Your task to perform on an android device: Go to Wikipedia Image 0: 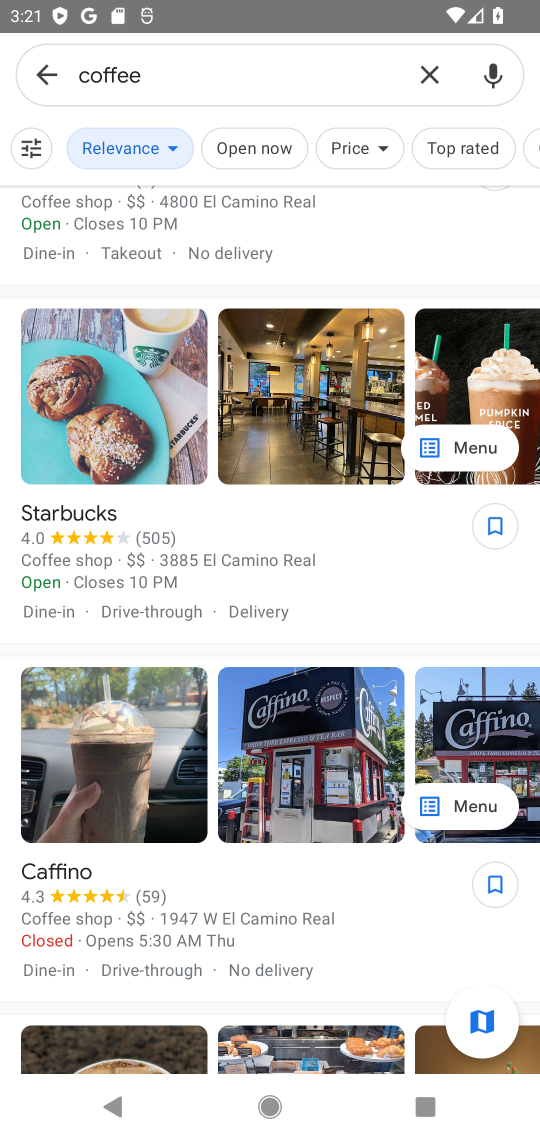
Step 0: drag from (258, 685) to (428, 1091)
Your task to perform on an android device: Go to Wikipedia Image 1: 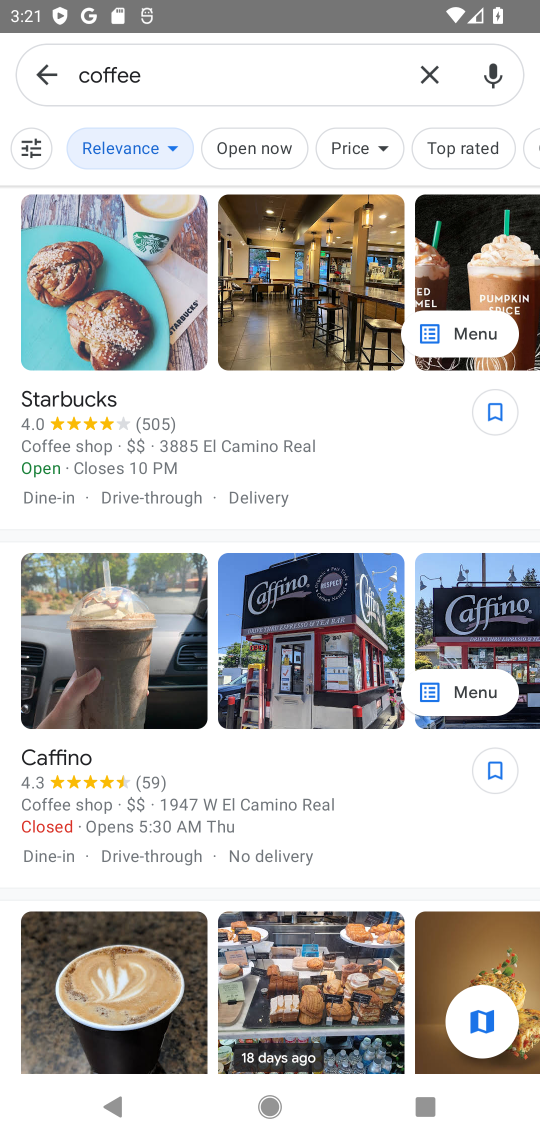
Step 1: click (421, 71)
Your task to perform on an android device: Go to Wikipedia Image 2: 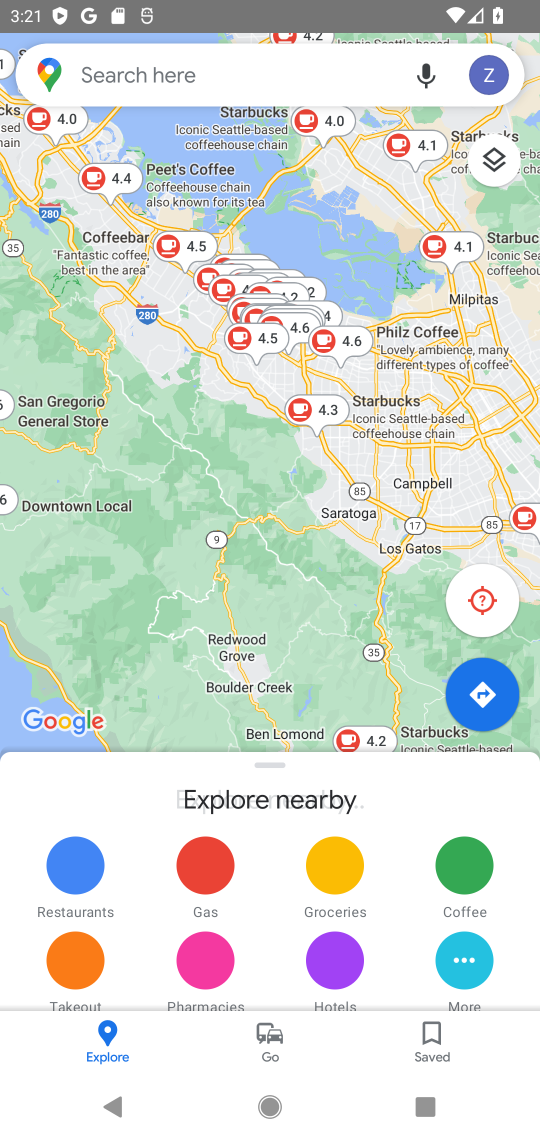
Step 2: press home button
Your task to perform on an android device: Go to Wikipedia Image 3: 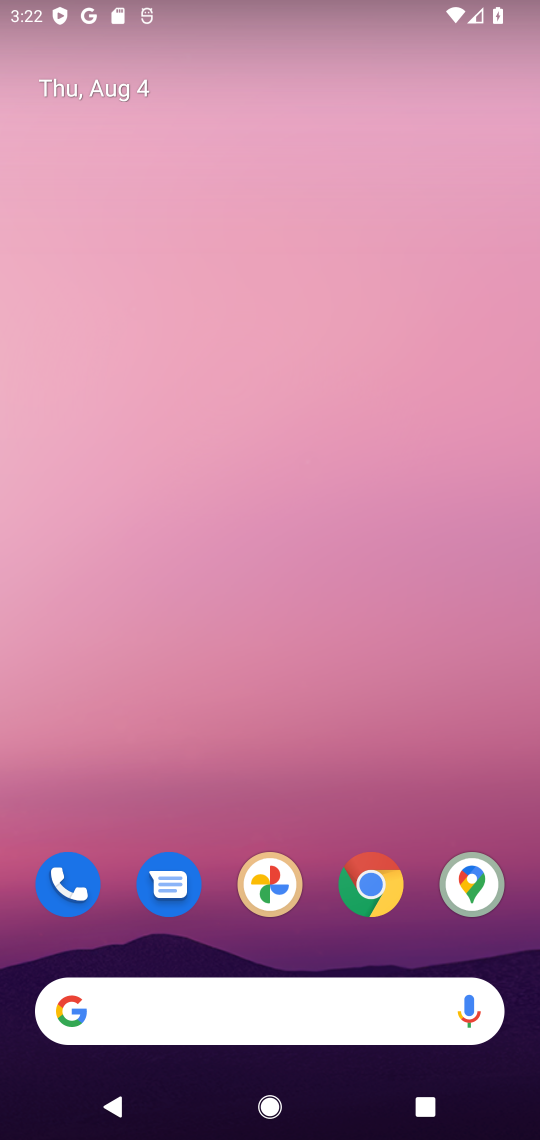
Step 3: click (190, 1018)
Your task to perform on an android device: Go to Wikipedia Image 4: 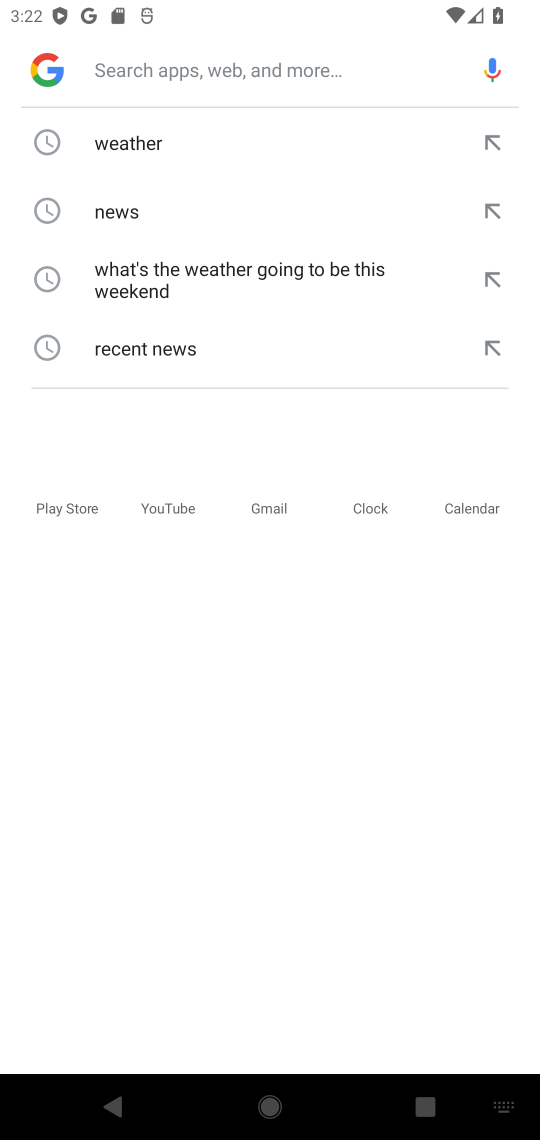
Step 4: type "Wikipedia"
Your task to perform on an android device: Go to Wikipedia Image 5: 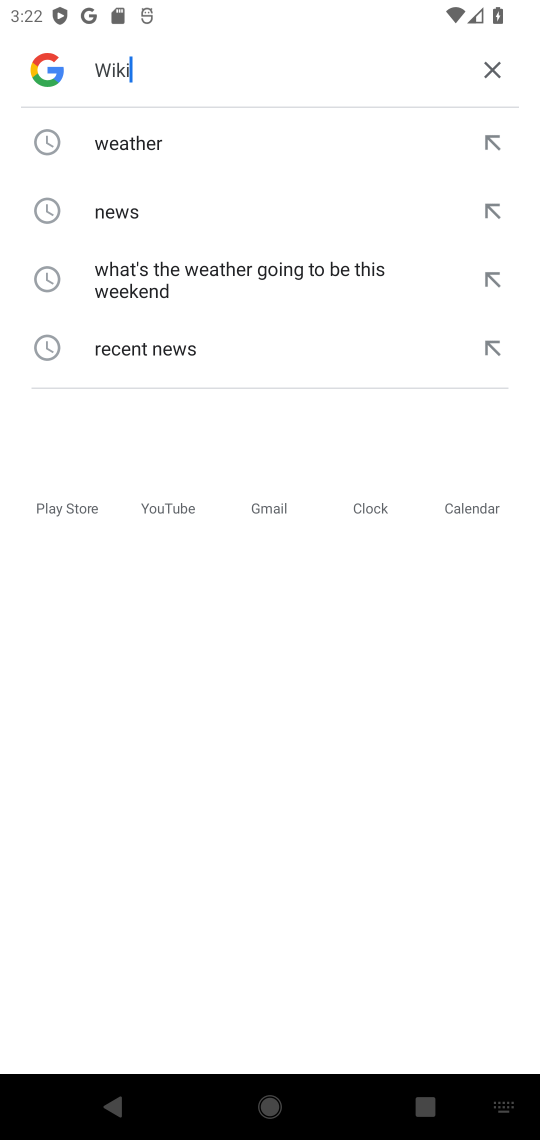
Step 5: type ""
Your task to perform on an android device: Go to Wikipedia Image 6: 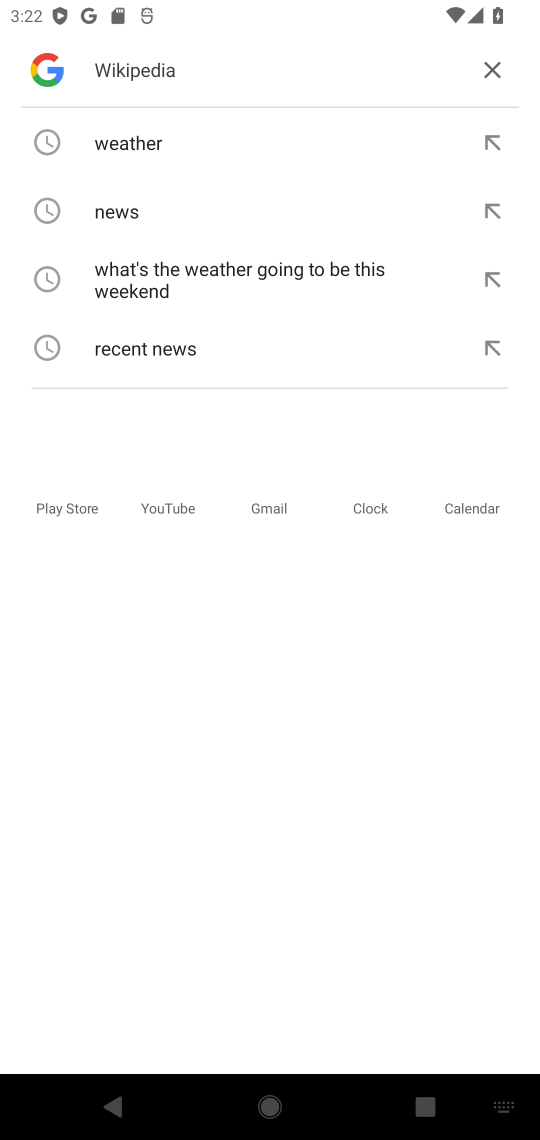
Step 6: drag from (163, 487) to (391, 1123)
Your task to perform on an android device: Go to Wikipedia Image 7: 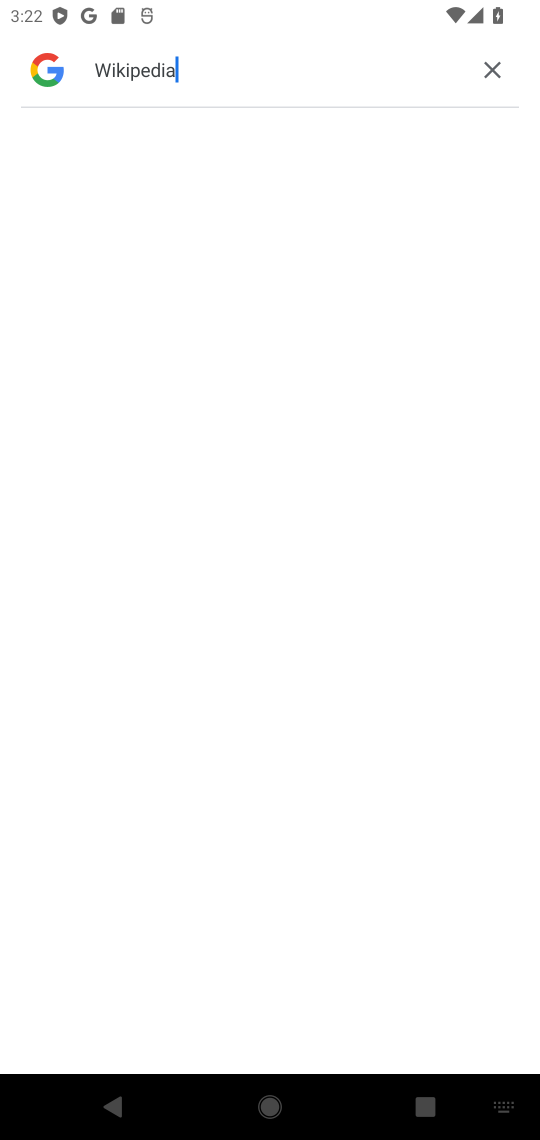
Step 7: click (144, 183)
Your task to perform on an android device: Go to Wikipedia Image 8: 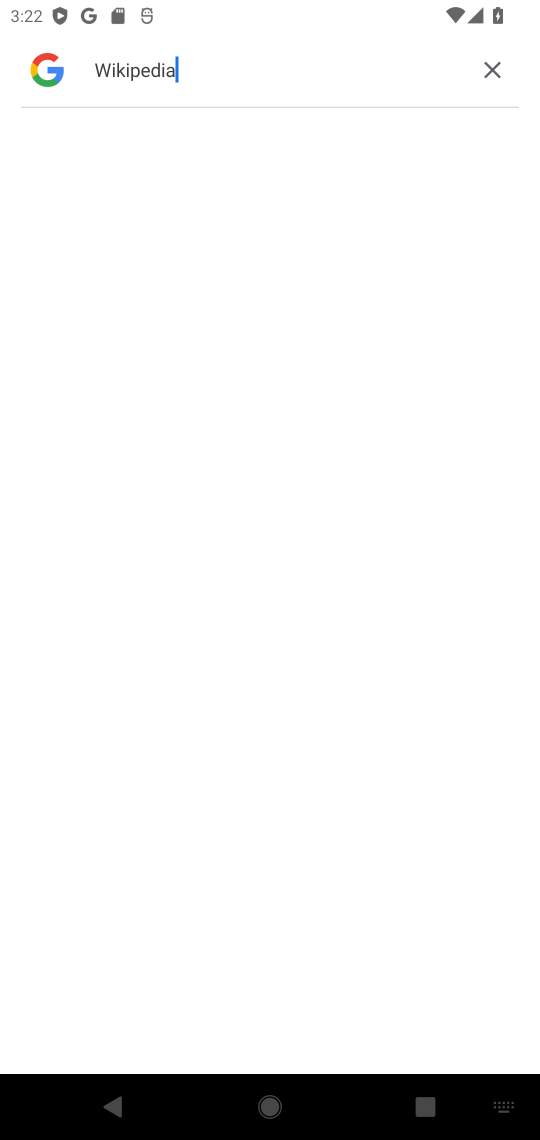
Step 8: drag from (264, 249) to (278, 735)
Your task to perform on an android device: Go to Wikipedia Image 9: 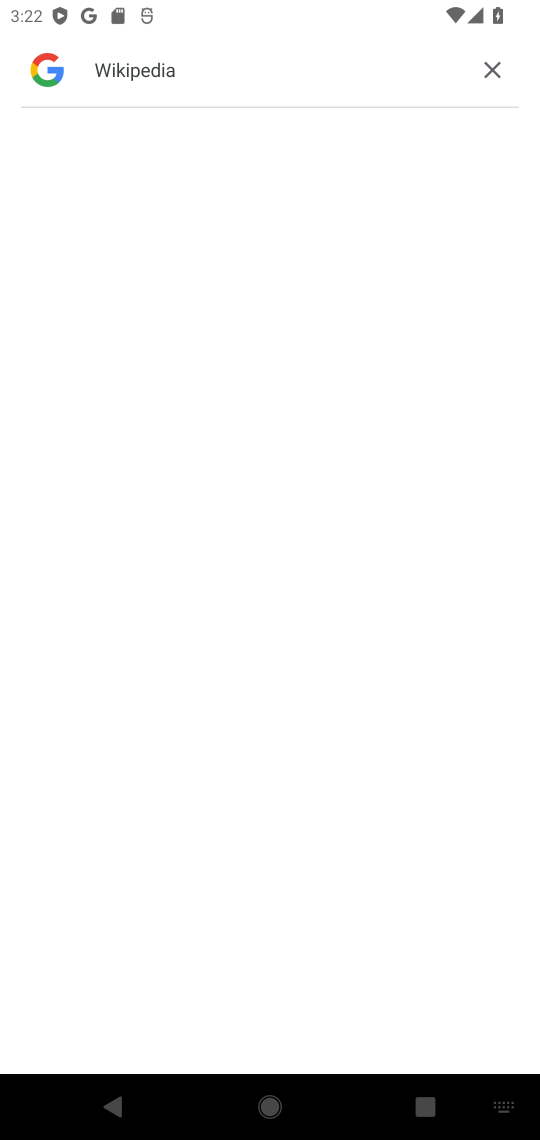
Step 9: click (244, 151)
Your task to perform on an android device: Go to Wikipedia Image 10: 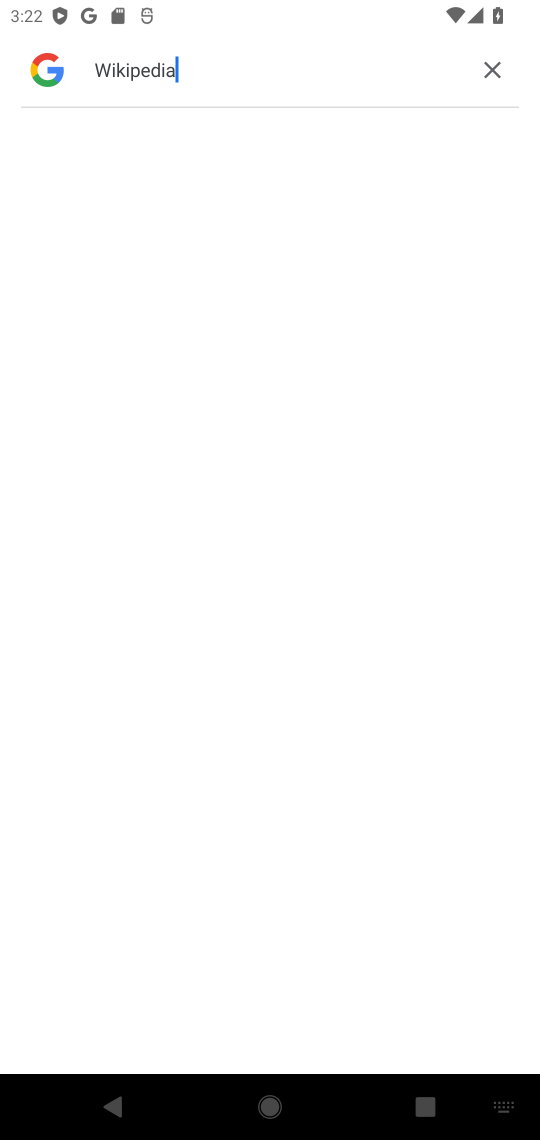
Step 10: click (244, 154)
Your task to perform on an android device: Go to Wikipedia Image 11: 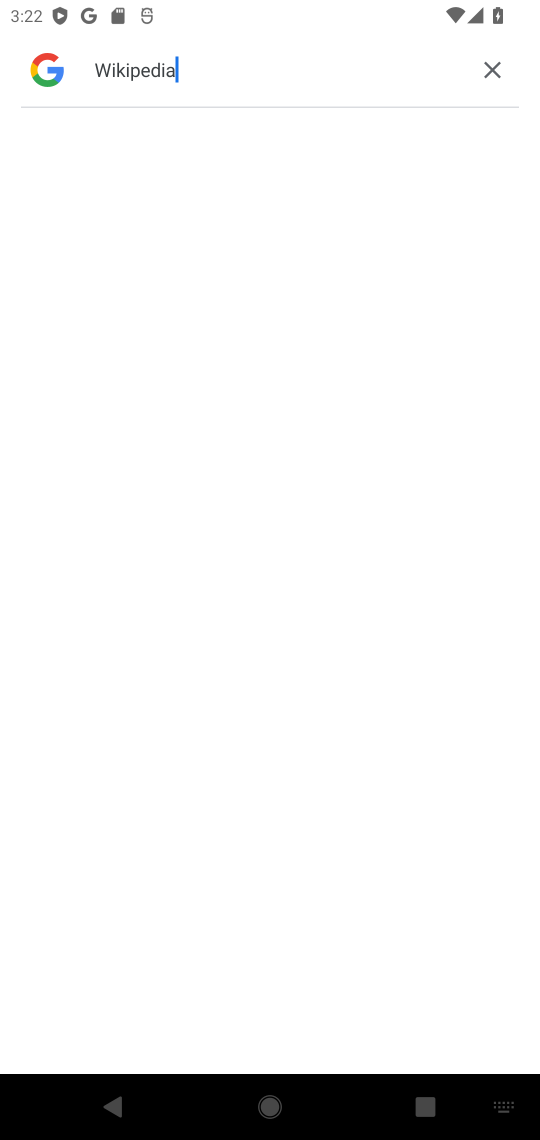
Step 11: press home button
Your task to perform on an android device: Go to Wikipedia Image 12: 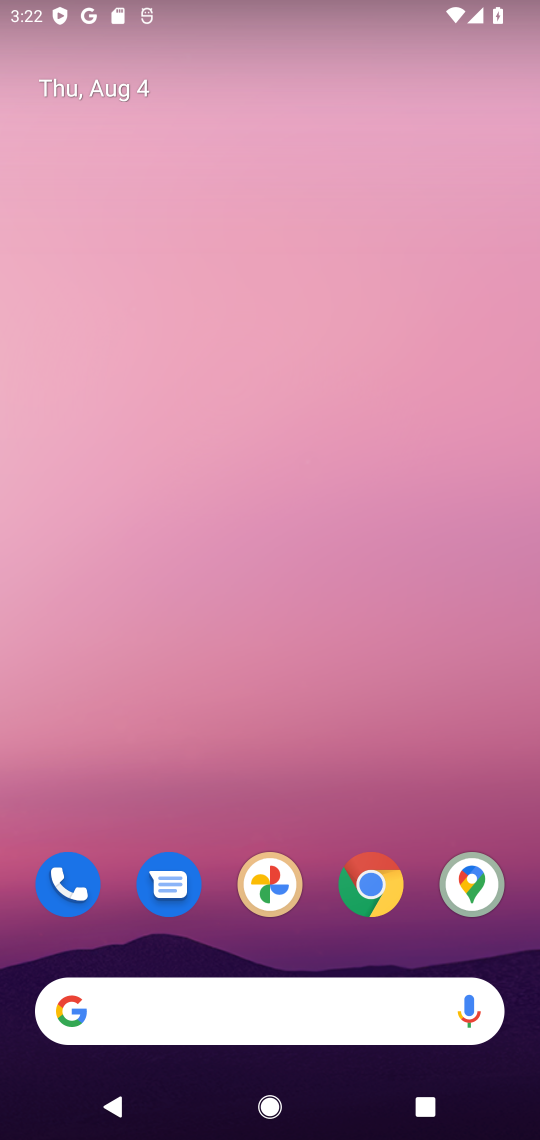
Step 12: click (371, 889)
Your task to perform on an android device: Go to Wikipedia Image 13: 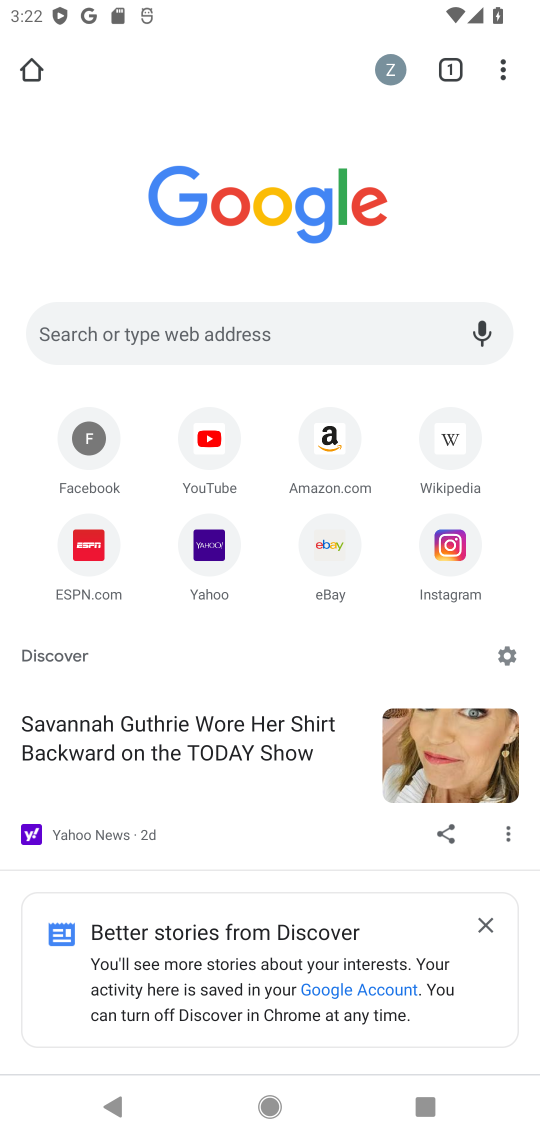
Step 13: click (170, 334)
Your task to perform on an android device: Go to Wikipedia Image 14: 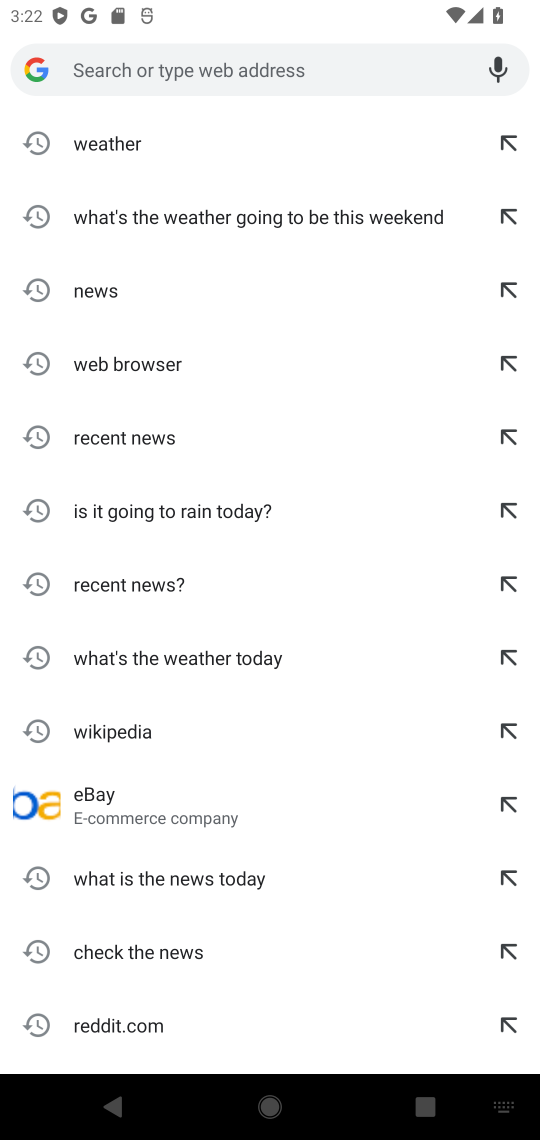
Step 14: type "Wikipedia"
Your task to perform on an android device: Go to Wikipedia Image 15: 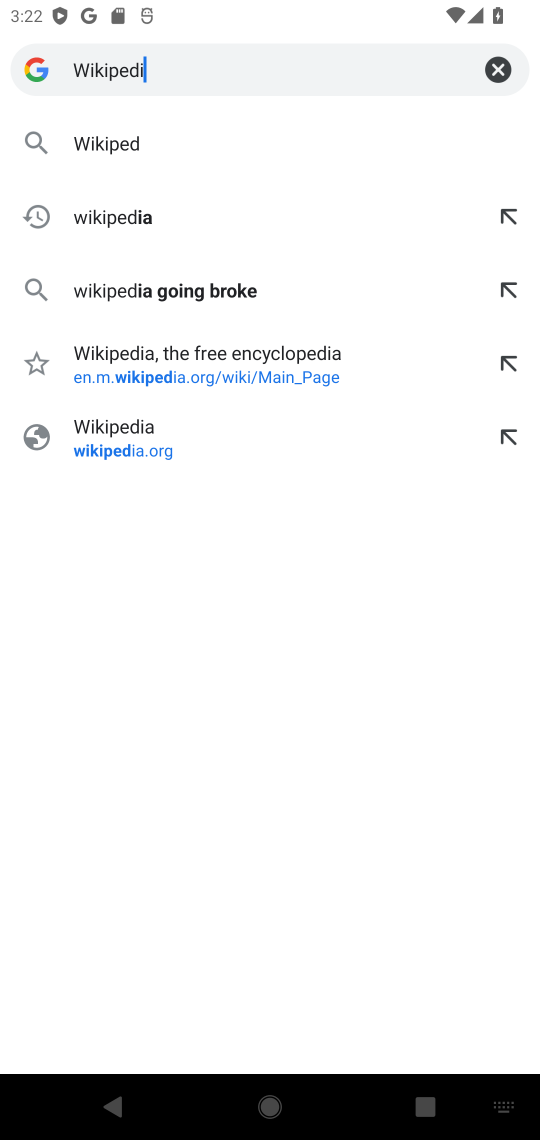
Step 15: type ""
Your task to perform on an android device: Go to Wikipedia Image 16: 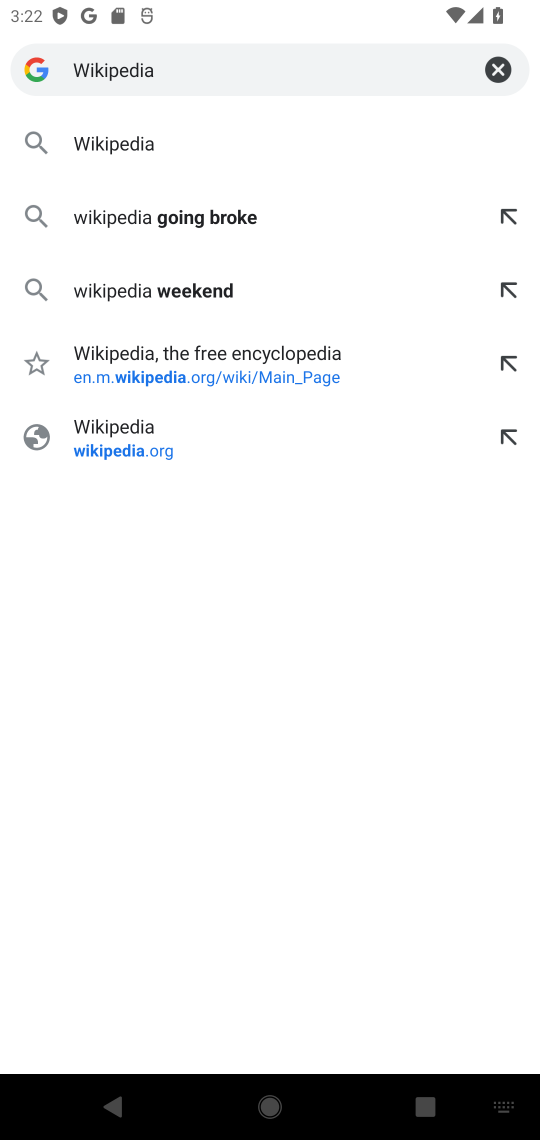
Step 16: click (182, 156)
Your task to perform on an android device: Go to Wikipedia Image 17: 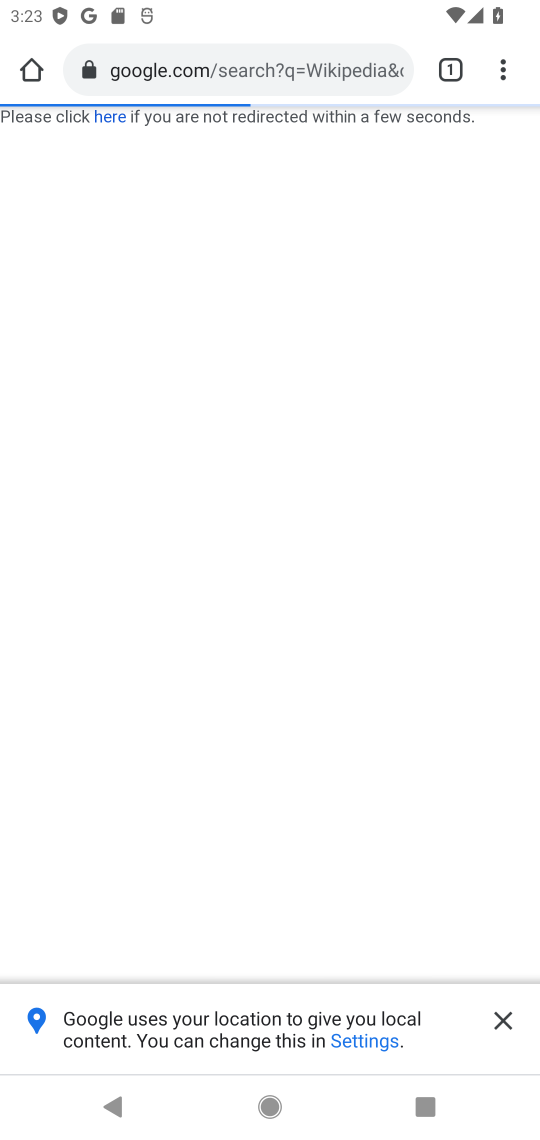
Step 17: drag from (238, 812) to (295, 214)
Your task to perform on an android device: Go to Wikipedia Image 18: 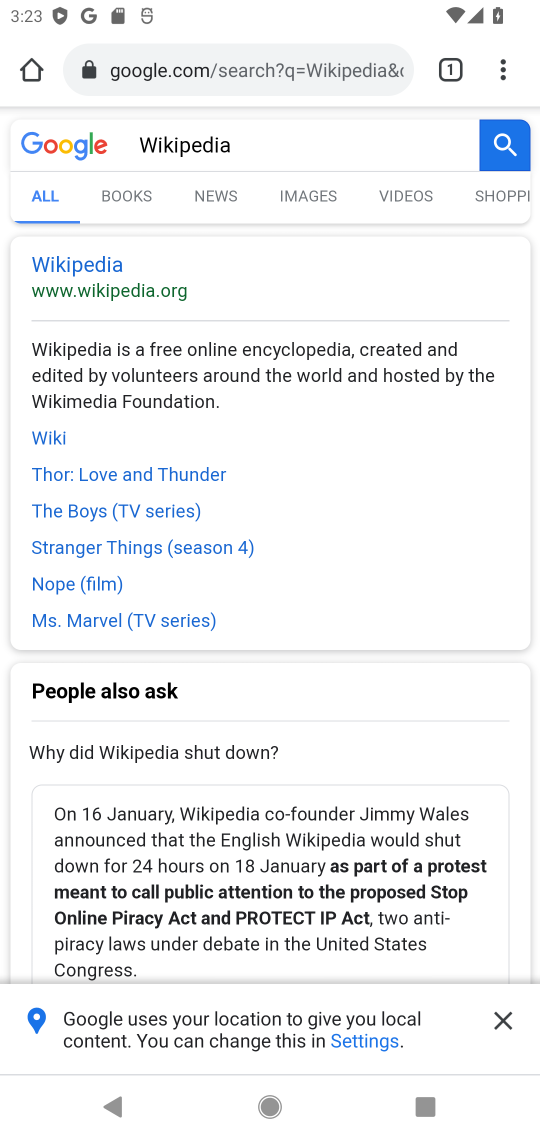
Step 18: click (83, 268)
Your task to perform on an android device: Go to Wikipedia Image 19: 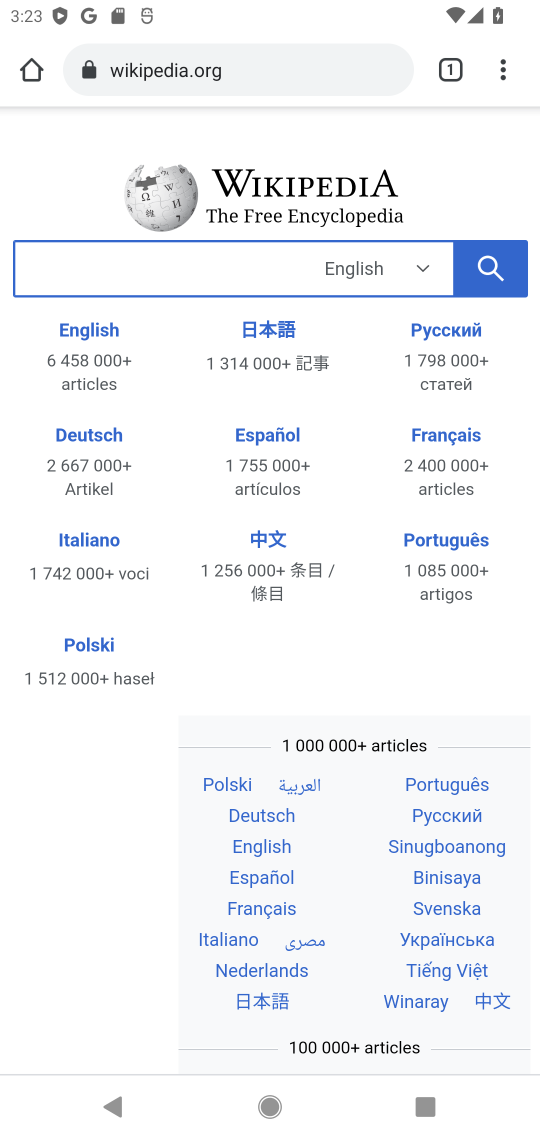
Step 19: task complete